Your task to perform on an android device: change alarm snooze length Image 0: 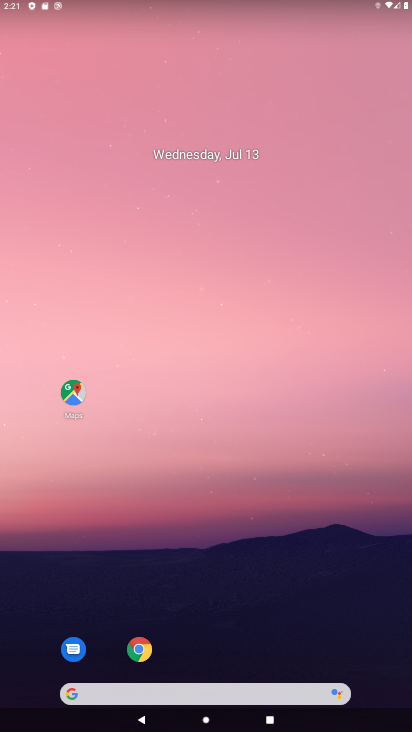
Step 0: press home button
Your task to perform on an android device: change alarm snooze length Image 1: 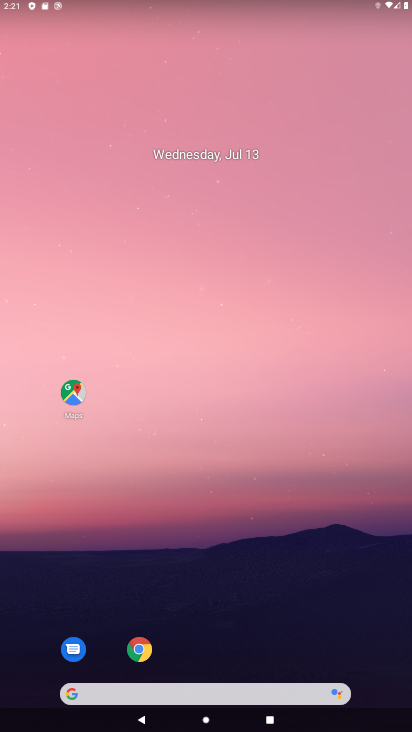
Step 1: drag from (225, 594) to (191, 92)
Your task to perform on an android device: change alarm snooze length Image 2: 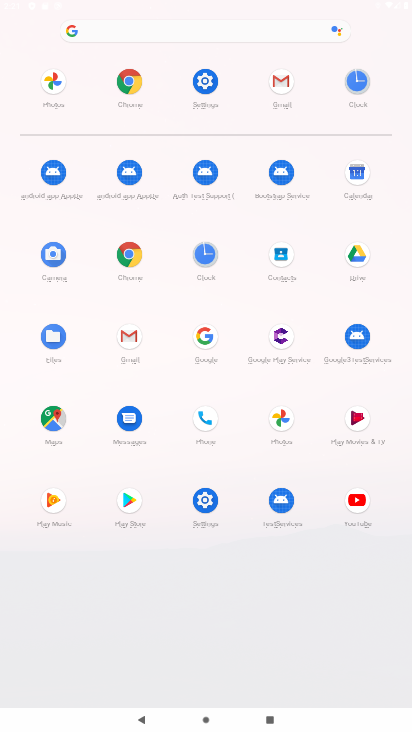
Step 2: click (202, 248)
Your task to perform on an android device: change alarm snooze length Image 3: 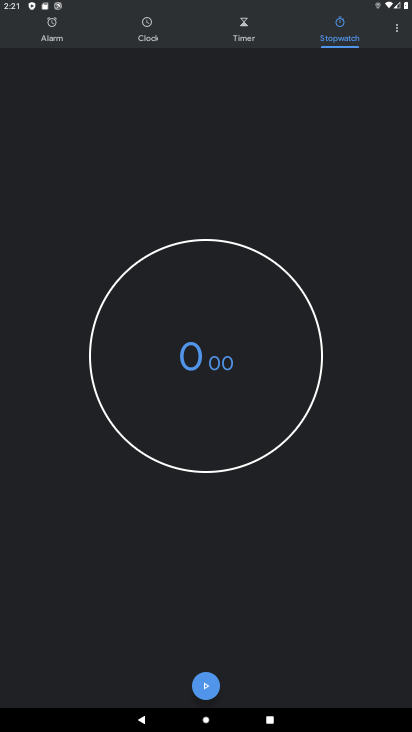
Step 3: click (397, 29)
Your task to perform on an android device: change alarm snooze length Image 4: 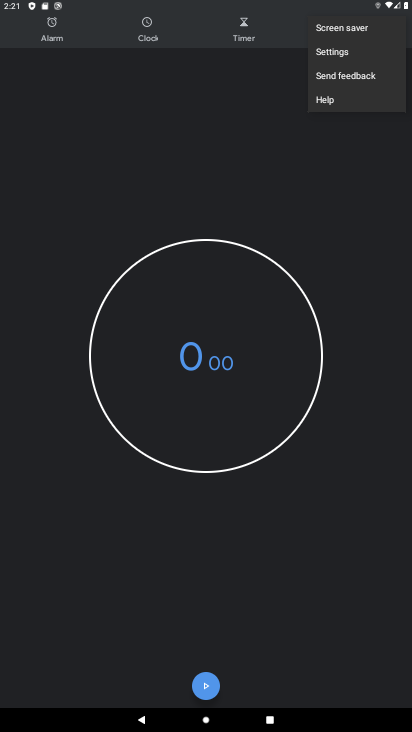
Step 4: click (351, 55)
Your task to perform on an android device: change alarm snooze length Image 5: 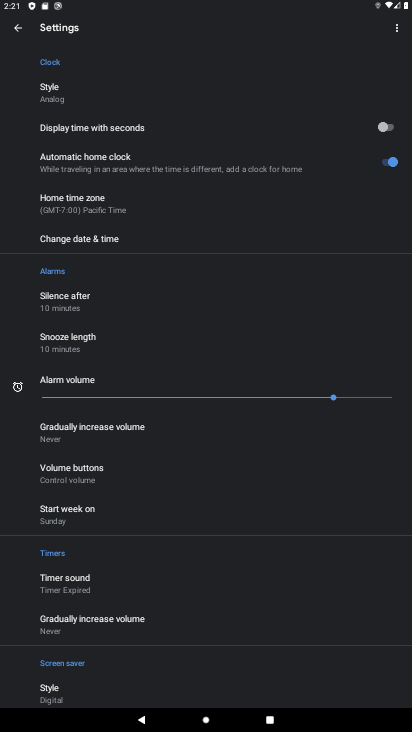
Step 5: click (79, 339)
Your task to perform on an android device: change alarm snooze length Image 6: 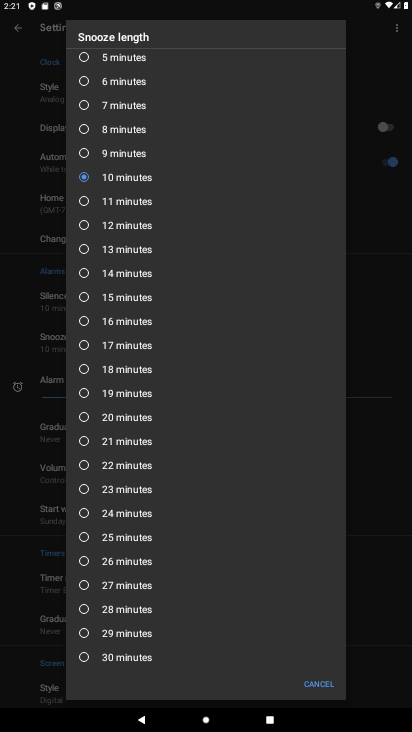
Step 6: click (86, 292)
Your task to perform on an android device: change alarm snooze length Image 7: 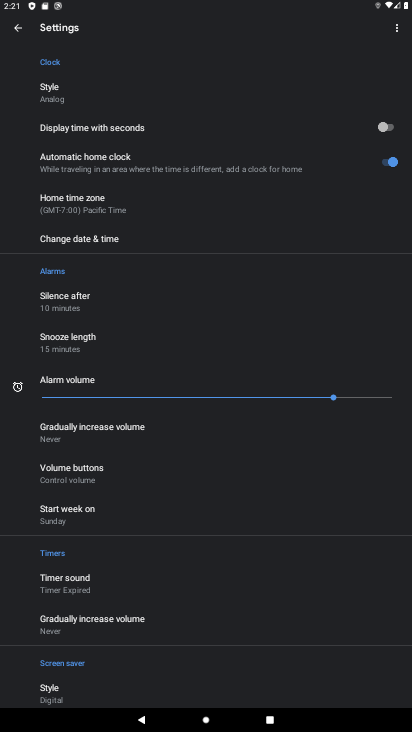
Step 7: task complete